Your task to perform on an android device: Open notification settings Image 0: 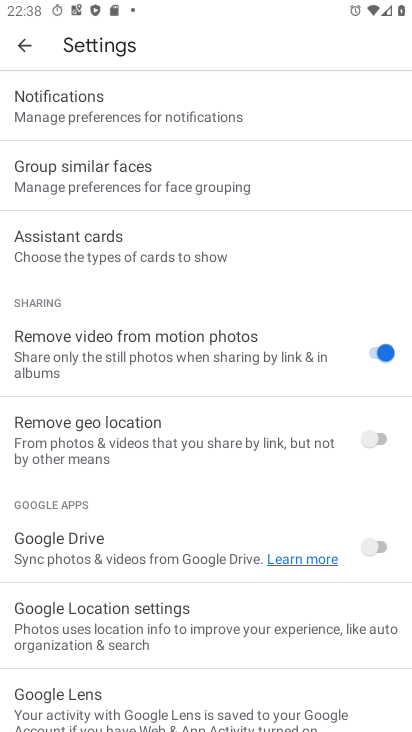
Step 0: press back button
Your task to perform on an android device: Open notification settings Image 1: 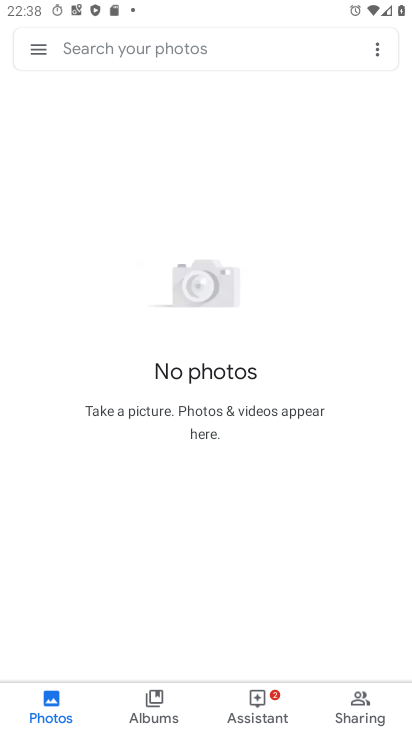
Step 1: press back button
Your task to perform on an android device: Open notification settings Image 2: 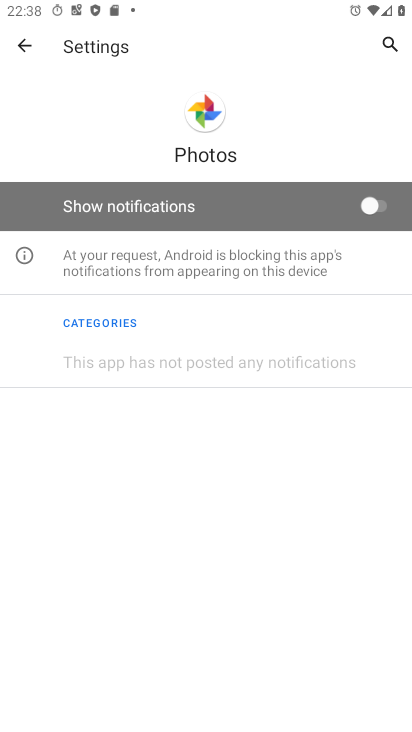
Step 2: press back button
Your task to perform on an android device: Open notification settings Image 3: 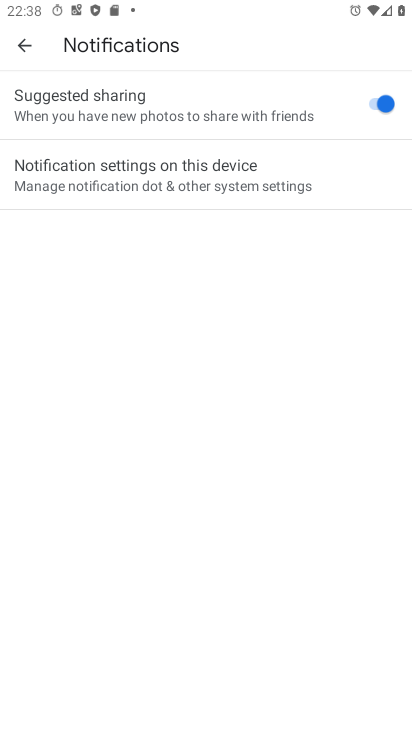
Step 3: press back button
Your task to perform on an android device: Open notification settings Image 4: 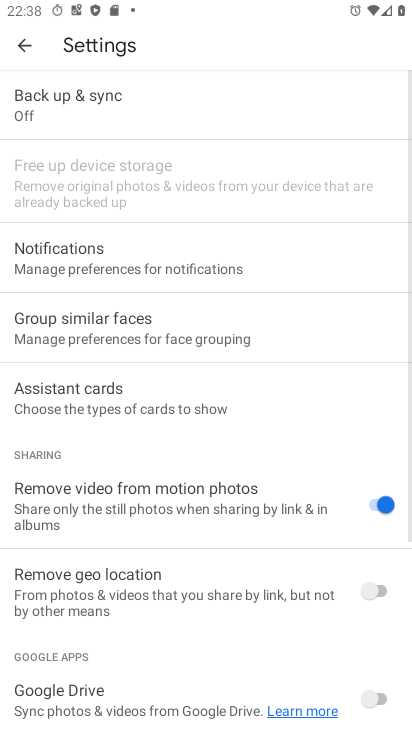
Step 4: press back button
Your task to perform on an android device: Open notification settings Image 5: 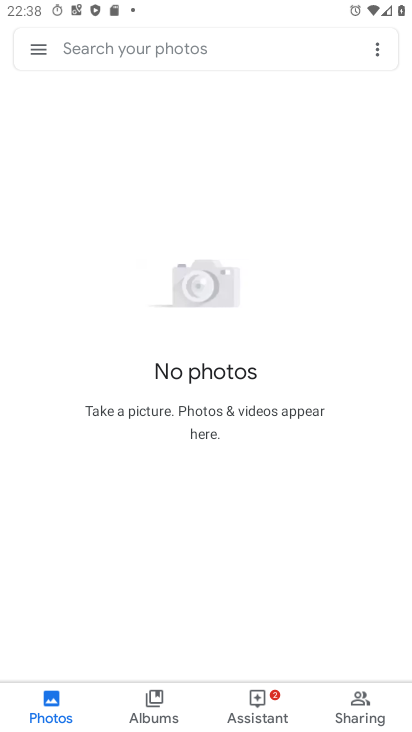
Step 5: press back button
Your task to perform on an android device: Open notification settings Image 6: 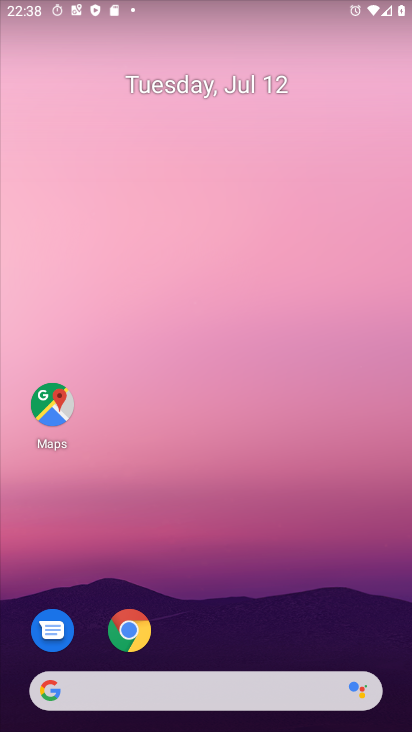
Step 6: drag from (276, 621) to (298, 11)
Your task to perform on an android device: Open notification settings Image 7: 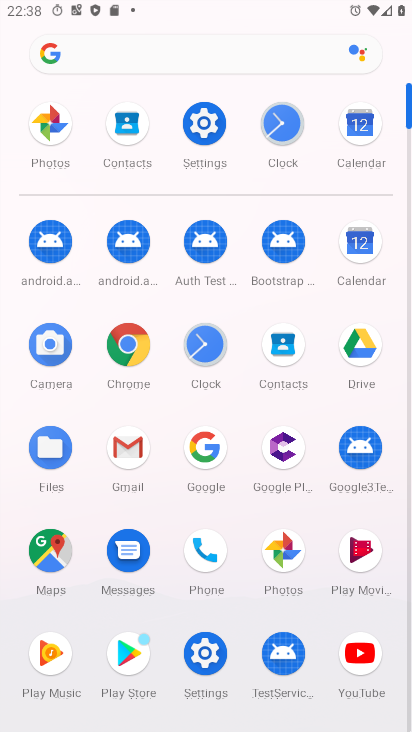
Step 7: click (202, 112)
Your task to perform on an android device: Open notification settings Image 8: 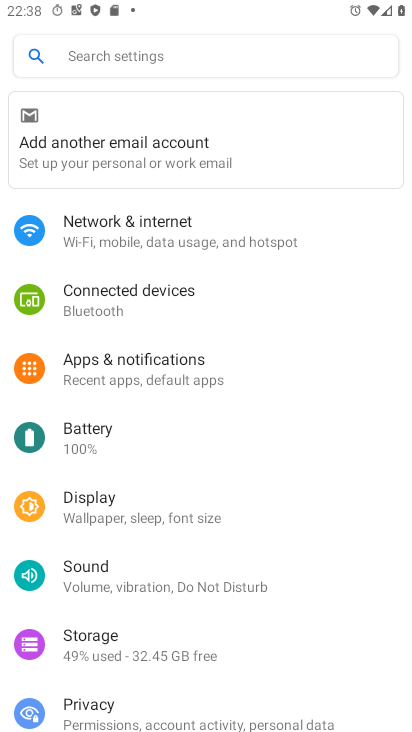
Step 8: click (124, 362)
Your task to perform on an android device: Open notification settings Image 9: 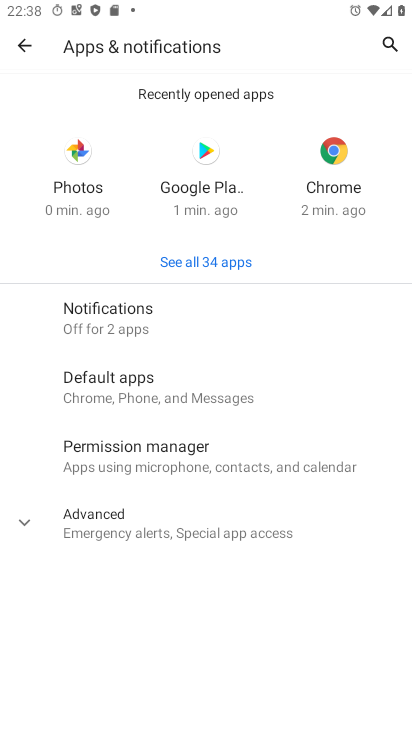
Step 9: click (115, 312)
Your task to perform on an android device: Open notification settings Image 10: 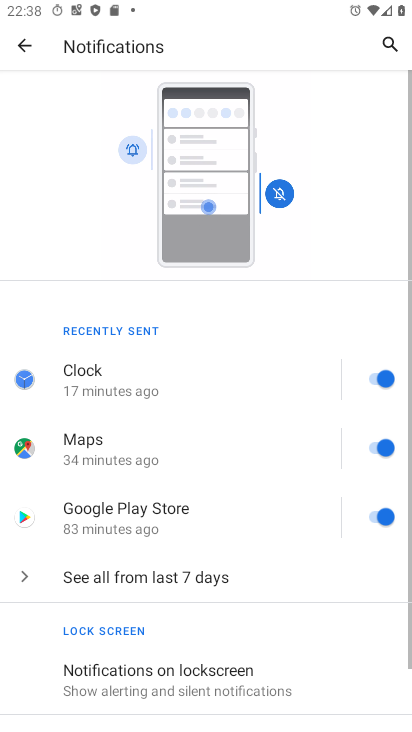
Step 10: task complete